Your task to perform on an android device: turn pop-ups on in chrome Image 0: 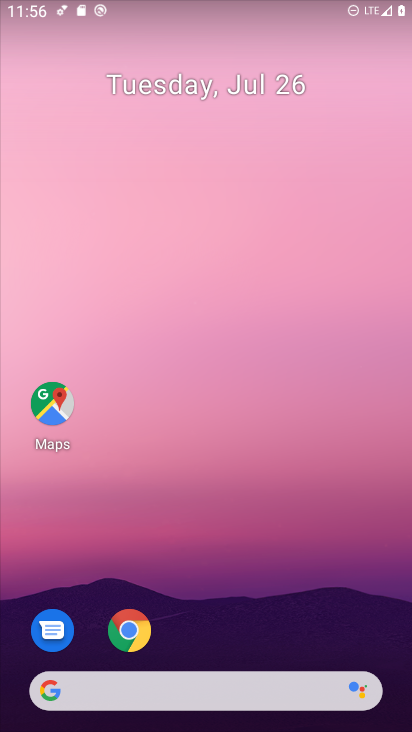
Step 0: click (133, 633)
Your task to perform on an android device: turn pop-ups on in chrome Image 1: 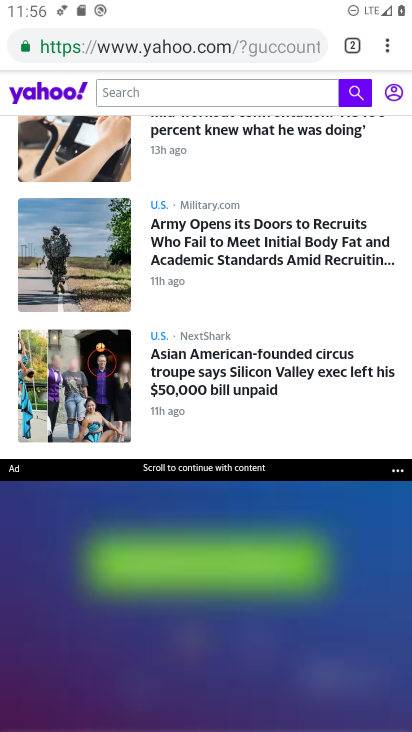
Step 1: click (388, 50)
Your task to perform on an android device: turn pop-ups on in chrome Image 2: 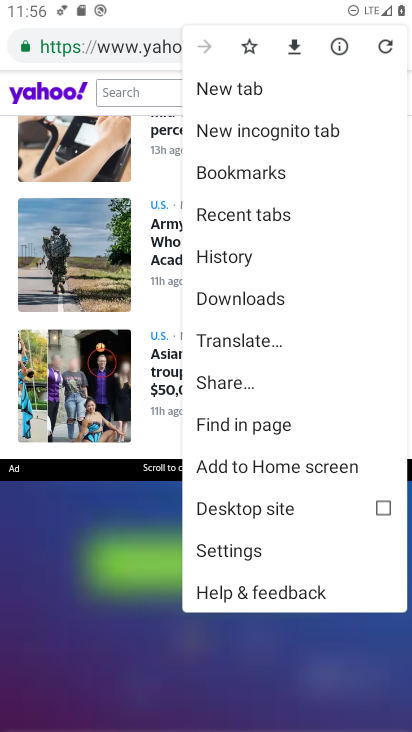
Step 2: click (244, 547)
Your task to perform on an android device: turn pop-ups on in chrome Image 3: 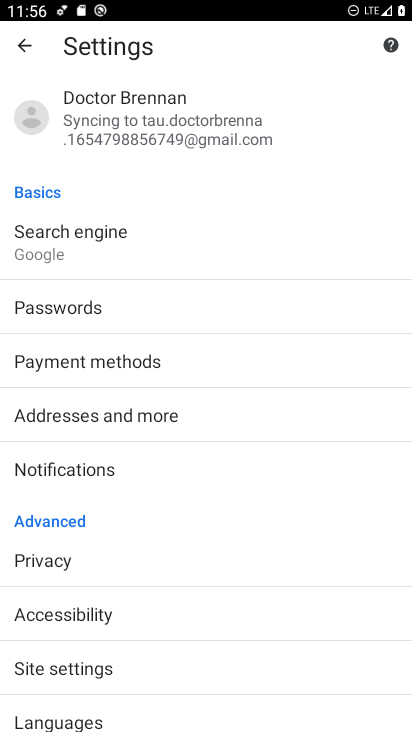
Step 3: drag from (212, 642) to (234, 299)
Your task to perform on an android device: turn pop-ups on in chrome Image 4: 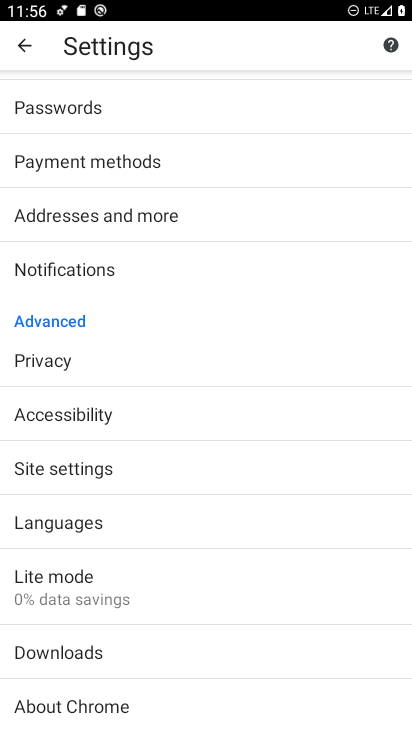
Step 4: click (54, 470)
Your task to perform on an android device: turn pop-ups on in chrome Image 5: 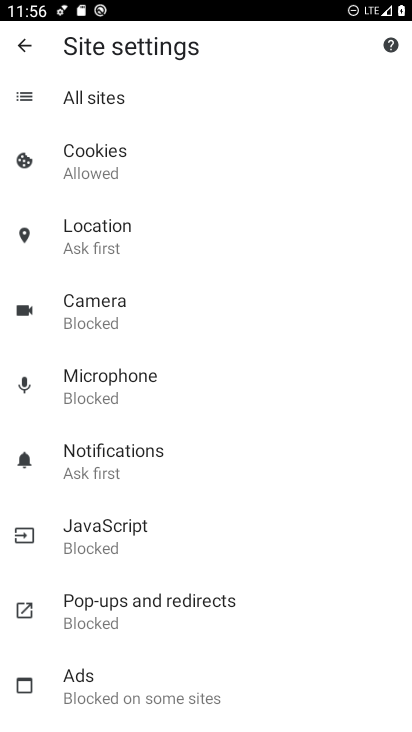
Step 5: drag from (312, 589) to (295, 316)
Your task to perform on an android device: turn pop-ups on in chrome Image 6: 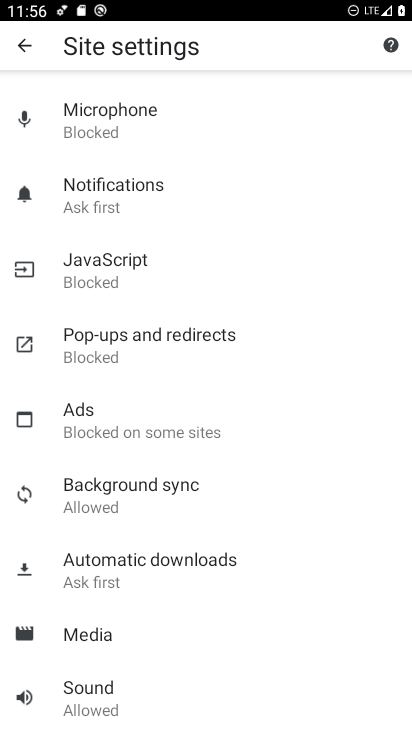
Step 6: click (108, 349)
Your task to perform on an android device: turn pop-ups on in chrome Image 7: 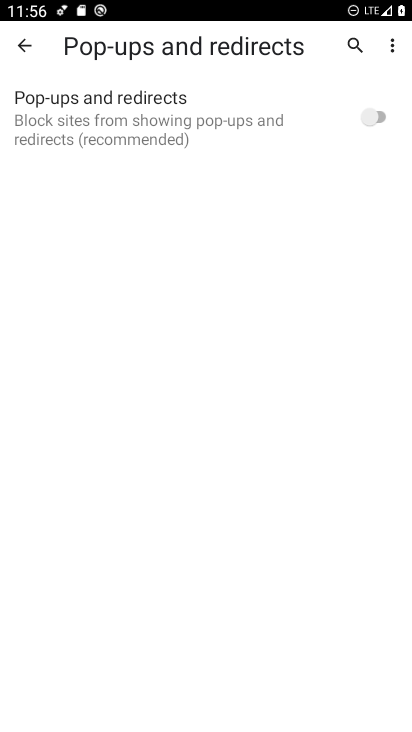
Step 7: click (381, 117)
Your task to perform on an android device: turn pop-ups on in chrome Image 8: 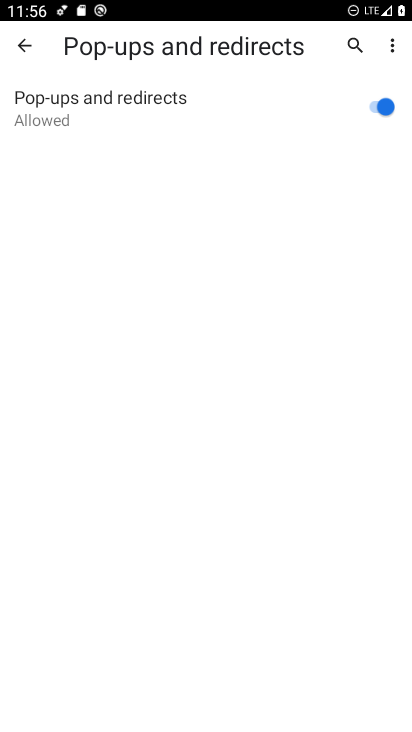
Step 8: task complete